Your task to perform on an android device: Go to notification settings Image 0: 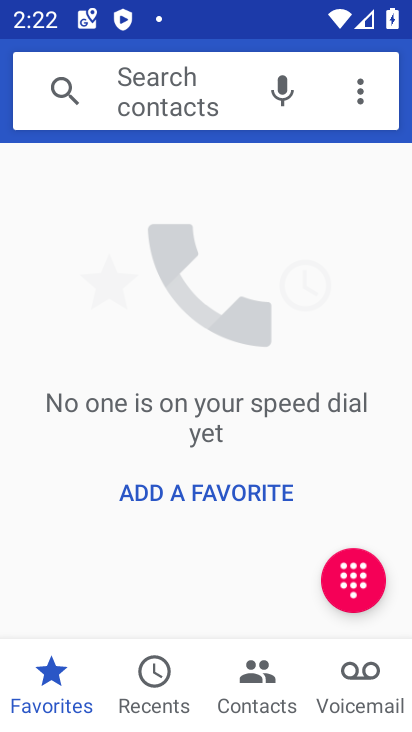
Step 0: press home button
Your task to perform on an android device: Go to notification settings Image 1: 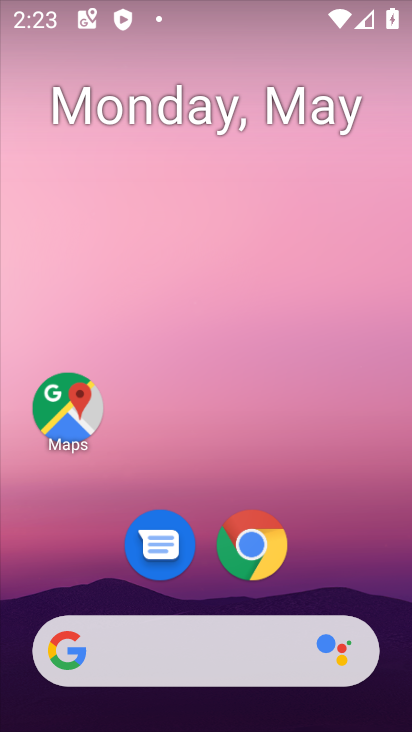
Step 1: drag from (264, 593) to (286, 45)
Your task to perform on an android device: Go to notification settings Image 2: 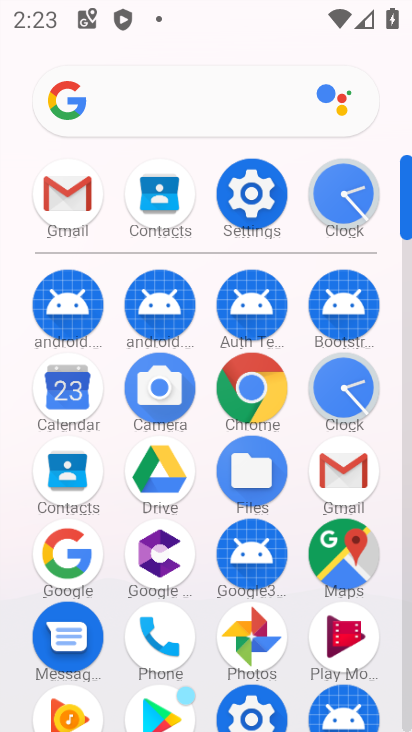
Step 2: click (250, 201)
Your task to perform on an android device: Go to notification settings Image 3: 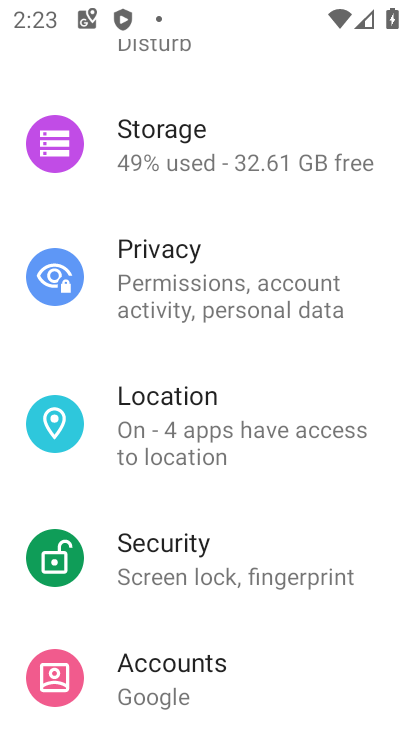
Step 3: drag from (296, 130) to (296, 642)
Your task to perform on an android device: Go to notification settings Image 4: 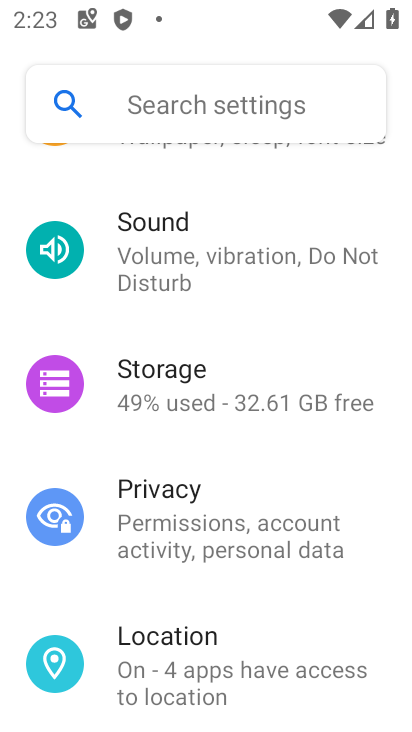
Step 4: drag from (325, 252) to (311, 708)
Your task to perform on an android device: Go to notification settings Image 5: 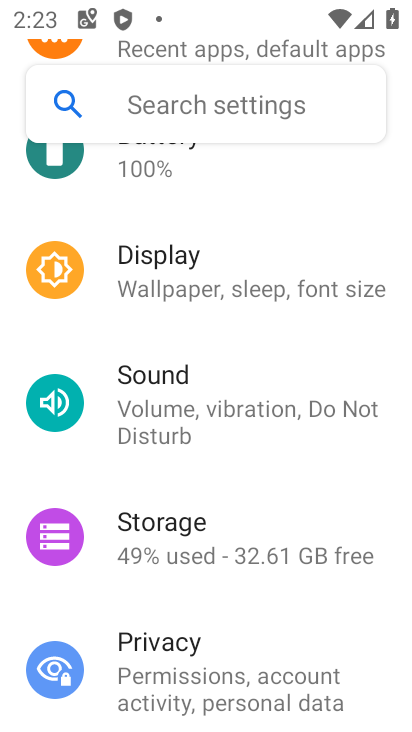
Step 5: drag from (312, 212) to (337, 603)
Your task to perform on an android device: Go to notification settings Image 6: 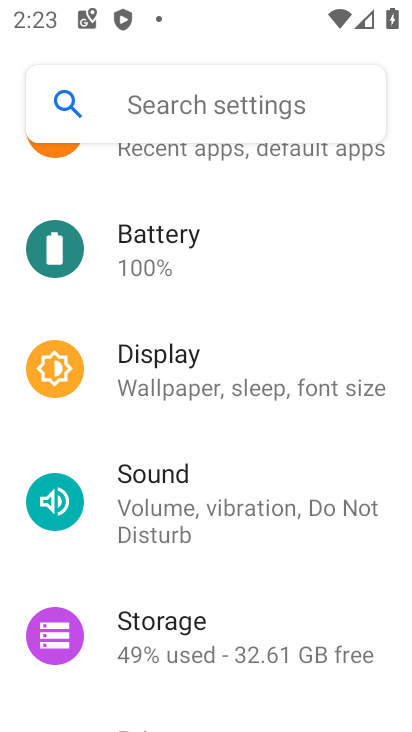
Step 6: drag from (361, 173) to (324, 616)
Your task to perform on an android device: Go to notification settings Image 7: 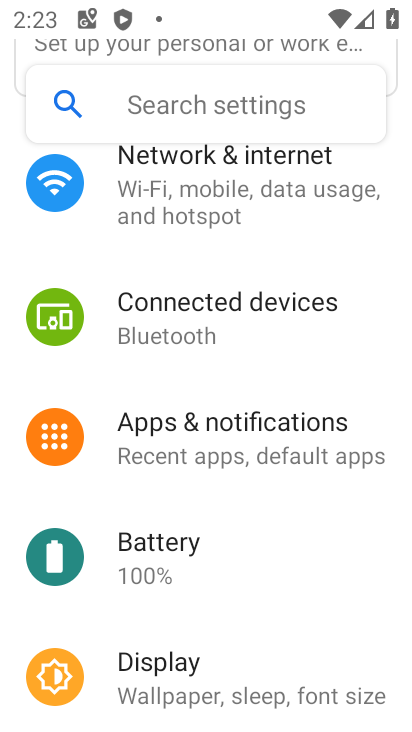
Step 7: click (281, 420)
Your task to perform on an android device: Go to notification settings Image 8: 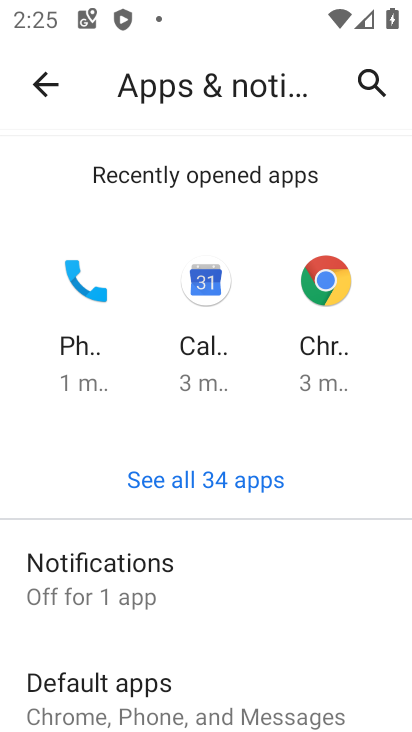
Step 8: drag from (323, 626) to (320, 123)
Your task to perform on an android device: Go to notification settings Image 9: 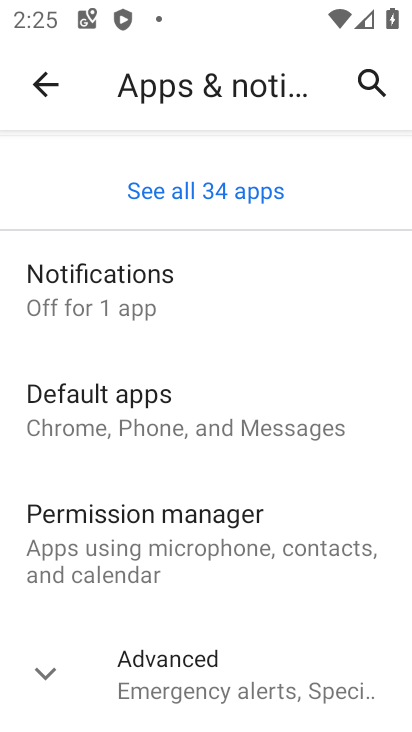
Step 9: click (167, 275)
Your task to perform on an android device: Go to notification settings Image 10: 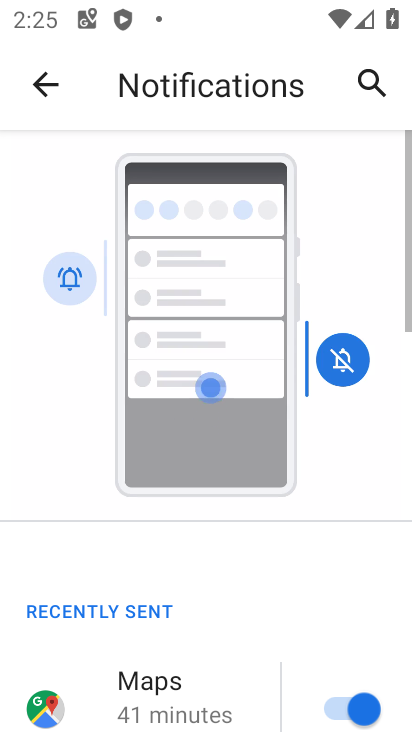
Step 10: task complete